Your task to perform on an android device: turn off priority inbox in the gmail app Image 0: 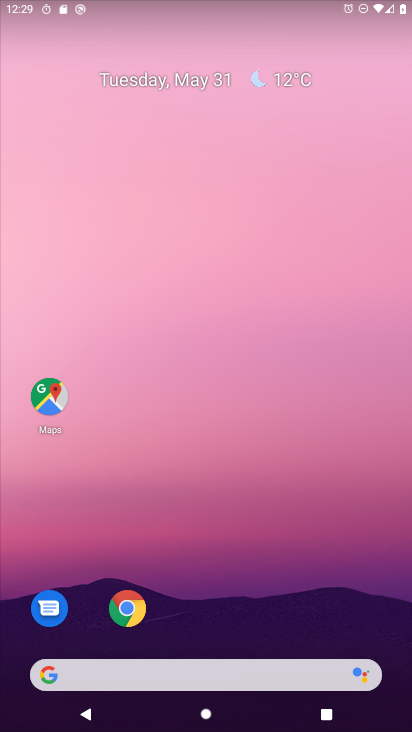
Step 0: drag from (278, 546) to (297, 0)
Your task to perform on an android device: turn off priority inbox in the gmail app Image 1: 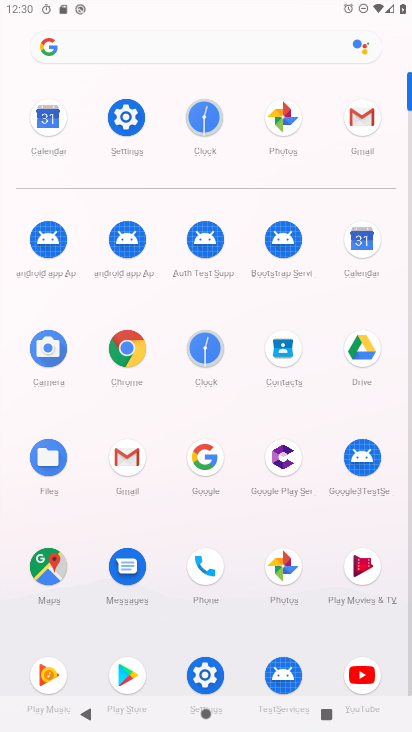
Step 1: click (357, 124)
Your task to perform on an android device: turn off priority inbox in the gmail app Image 2: 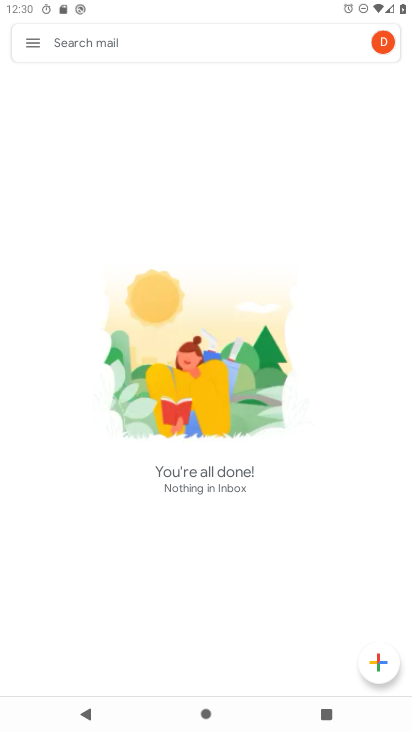
Step 2: click (23, 44)
Your task to perform on an android device: turn off priority inbox in the gmail app Image 3: 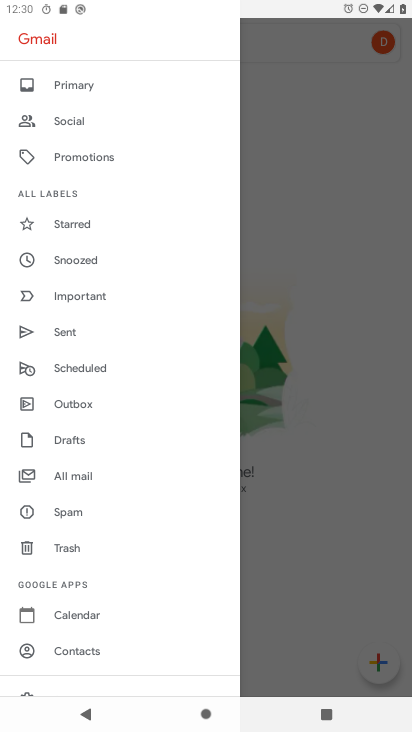
Step 3: drag from (153, 599) to (71, 638)
Your task to perform on an android device: turn off priority inbox in the gmail app Image 4: 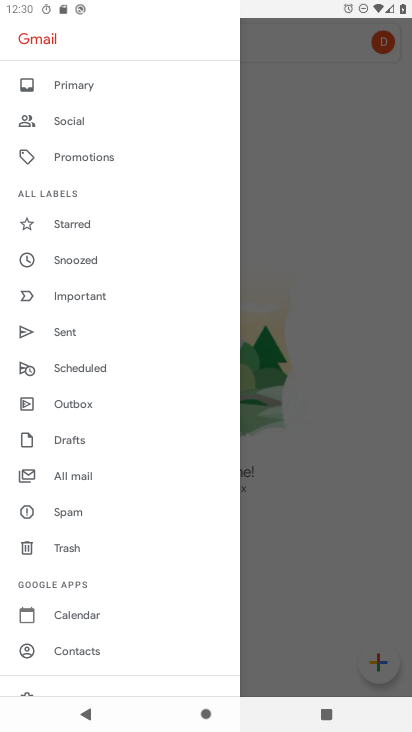
Step 4: drag from (153, 613) to (165, 439)
Your task to perform on an android device: turn off priority inbox in the gmail app Image 5: 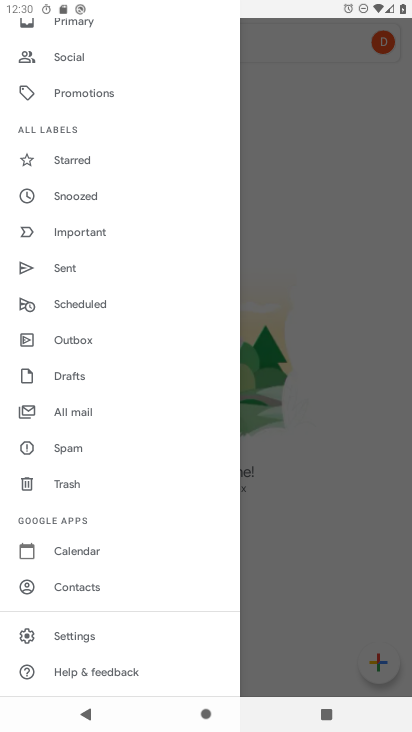
Step 5: click (71, 636)
Your task to perform on an android device: turn off priority inbox in the gmail app Image 6: 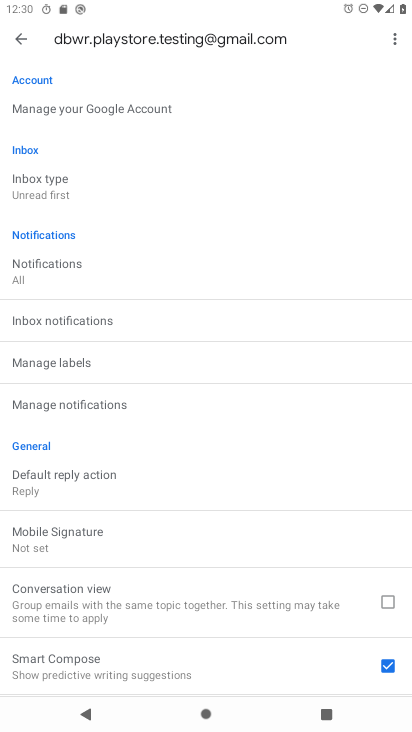
Step 6: click (39, 191)
Your task to perform on an android device: turn off priority inbox in the gmail app Image 7: 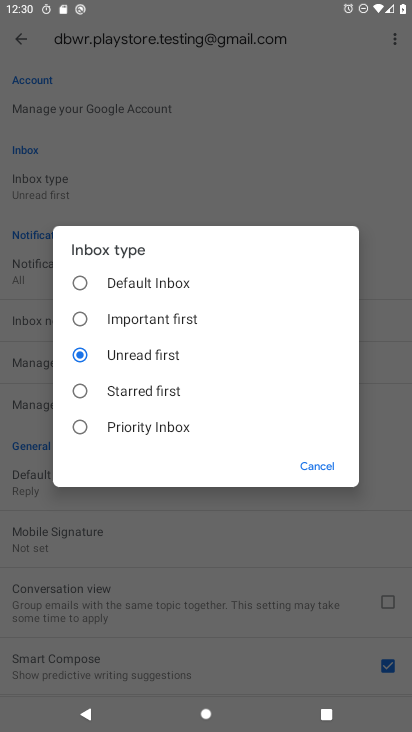
Step 7: task complete